Your task to perform on an android device: Check my email Image 0: 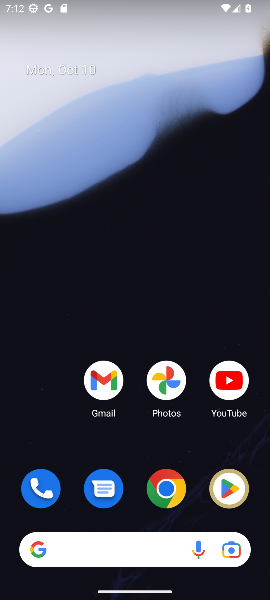
Step 0: drag from (129, 452) to (150, 78)
Your task to perform on an android device: Check my email Image 1: 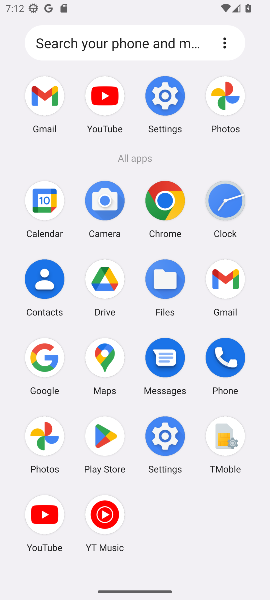
Step 1: click (222, 273)
Your task to perform on an android device: Check my email Image 2: 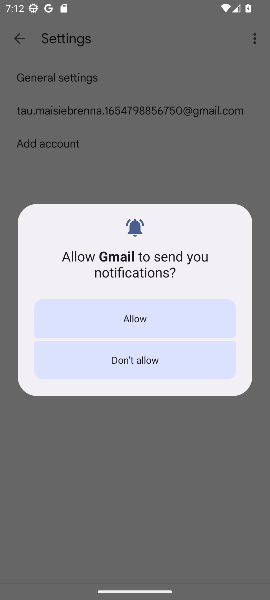
Step 2: click (184, 370)
Your task to perform on an android device: Check my email Image 3: 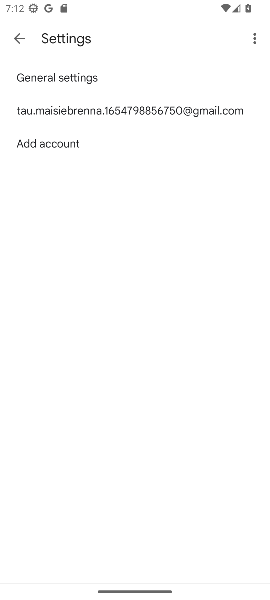
Step 3: press back button
Your task to perform on an android device: Check my email Image 4: 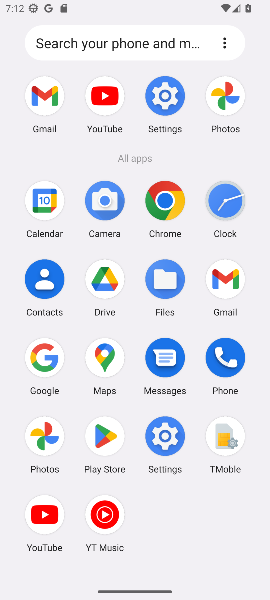
Step 4: click (232, 278)
Your task to perform on an android device: Check my email Image 5: 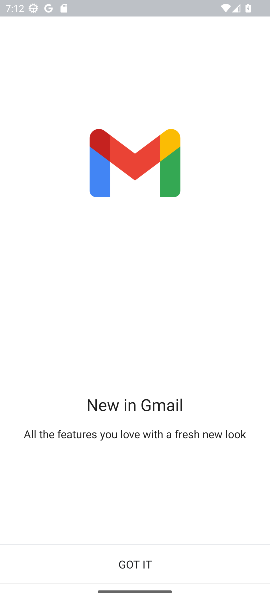
Step 5: click (148, 551)
Your task to perform on an android device: Check my email Image 6: 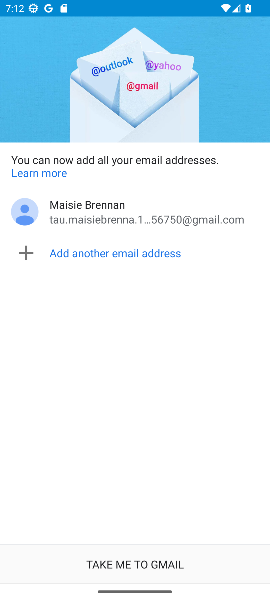
Step 6: click (141, 548)
Your task to perform on an android device: Check my email Image 7: 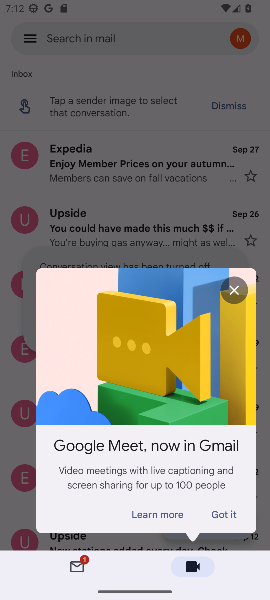
Step 7: click (236, 298)
Your task to perform on an android device: Check my email Image 8: 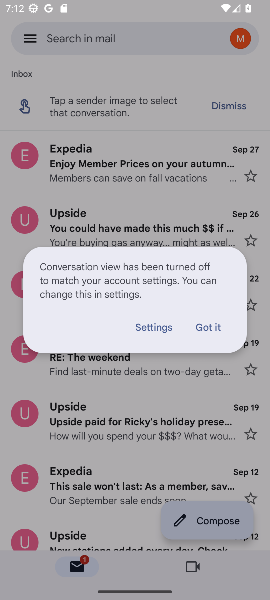
Step 8: click (215, 325)
Your task to perform on an android device: Check my email Image 9: 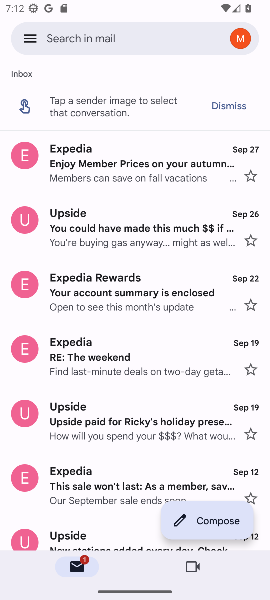
Step 9: task complete